Your task to perform on an android device: turn off priority inbox in the gmail app Image 0: 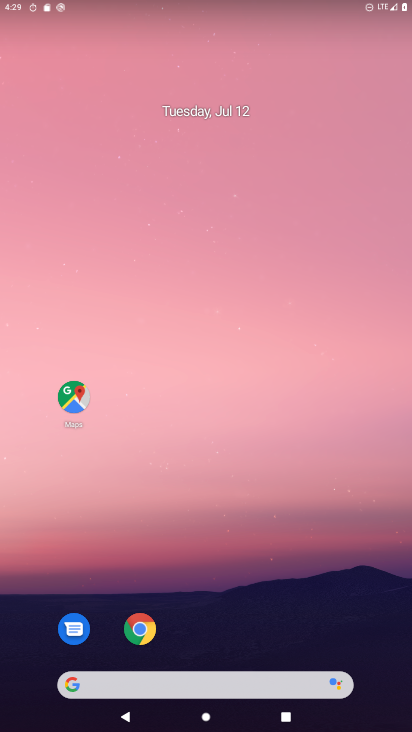
Step 0: drag from (266, 618) to (218, 156)
Your task to perform on an android device: turn off priority inbox in the gmail app Image 1: 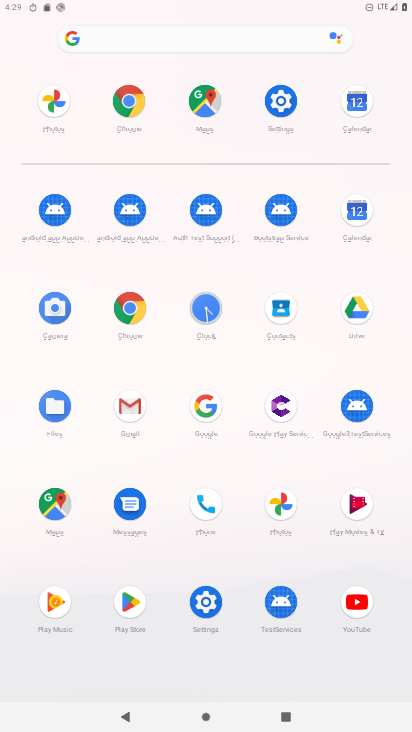
Step 1: click (136, 395)
Your task to perform on an android device: turn off priority inbox in the gmail app Image 2: 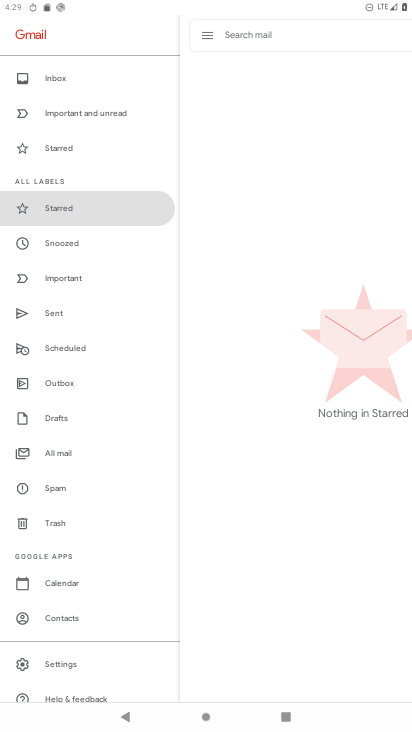
Step 2: click (59, 669)
Your task to perform on an android device: turn off priority inbox in the gmail app Image 3: 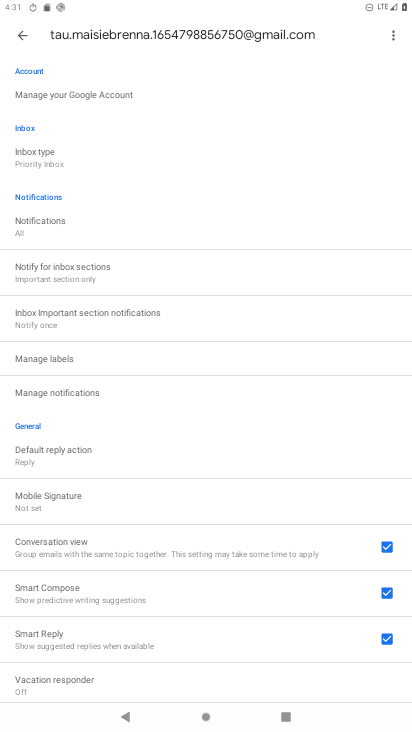
Step 3: click (29, 159)
Your task to perform on an android device: turn off priority inbox in the gmail app Image 4: 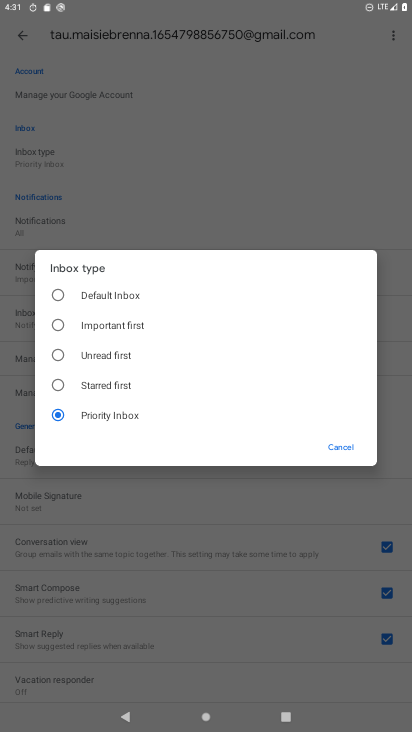
Step 4: click (89, 290)
Your task to perform on an android device: turn off priority inbox in the gmail app Image 5: 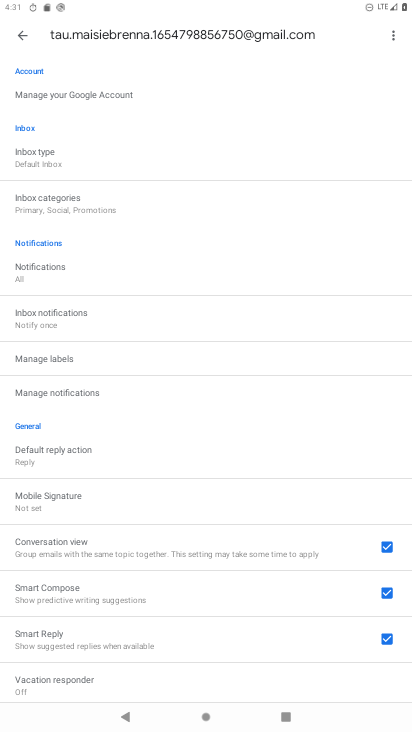
Step 5: task complete